Your task to perform on an android device: check data usage Image 0: 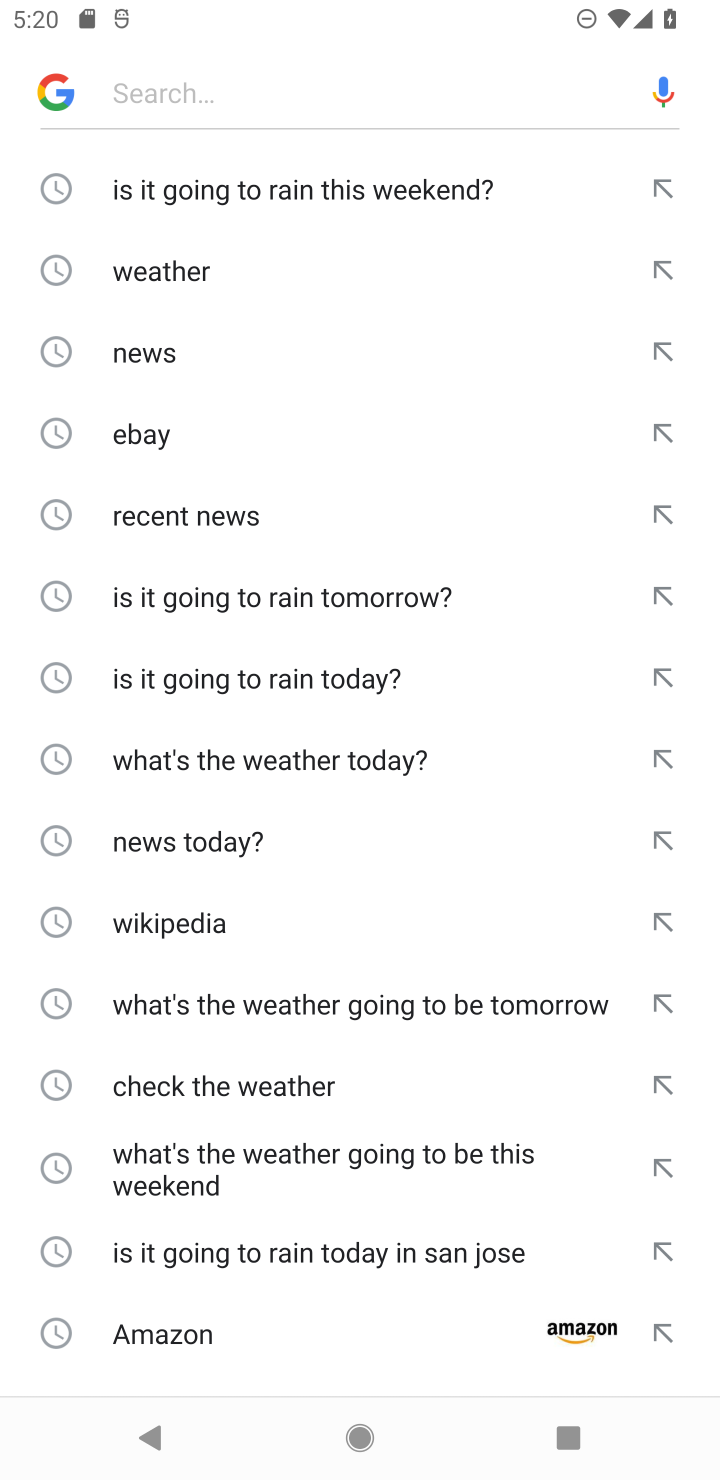
Step 0: click (535, 543)
Your task to perform on an android device: check data usage Image 1: 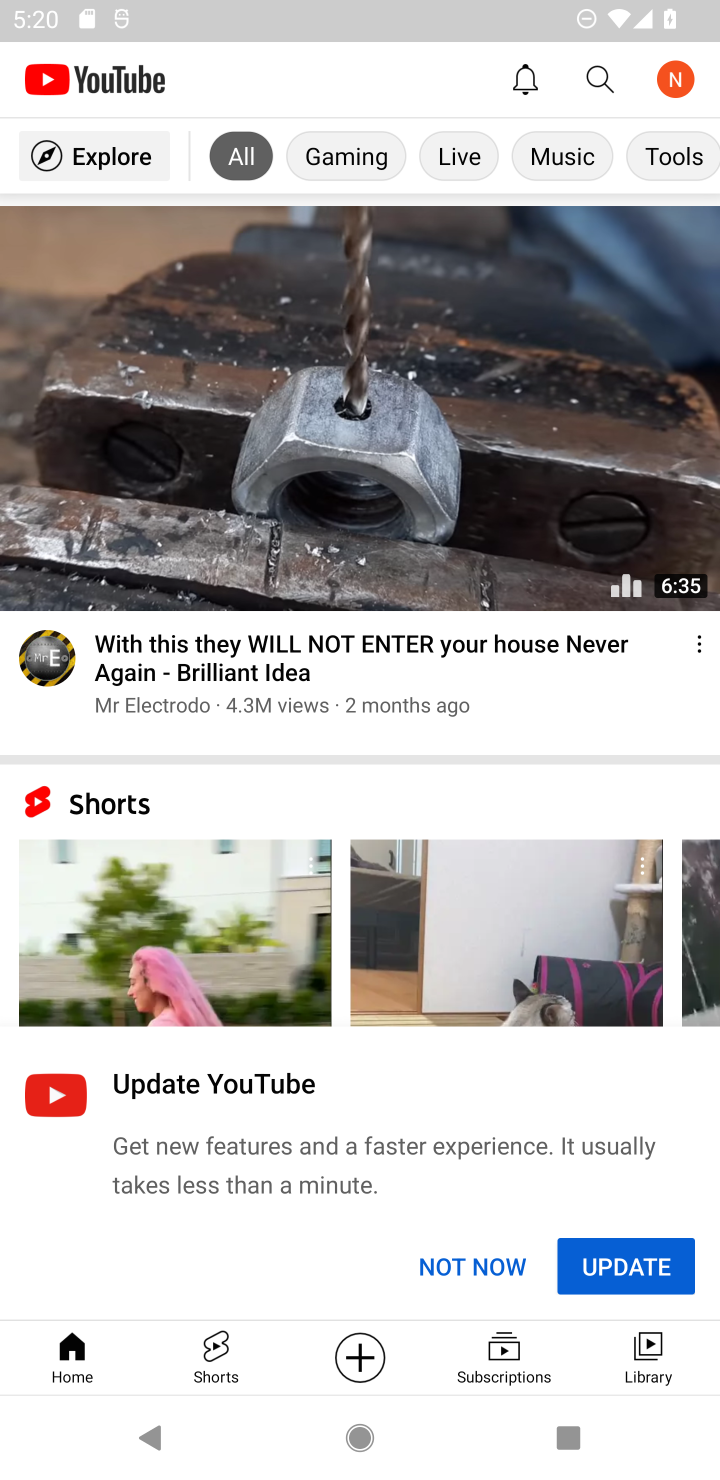
Step 1: press home button
Your task to perform on an android device: check data usage Image 2: 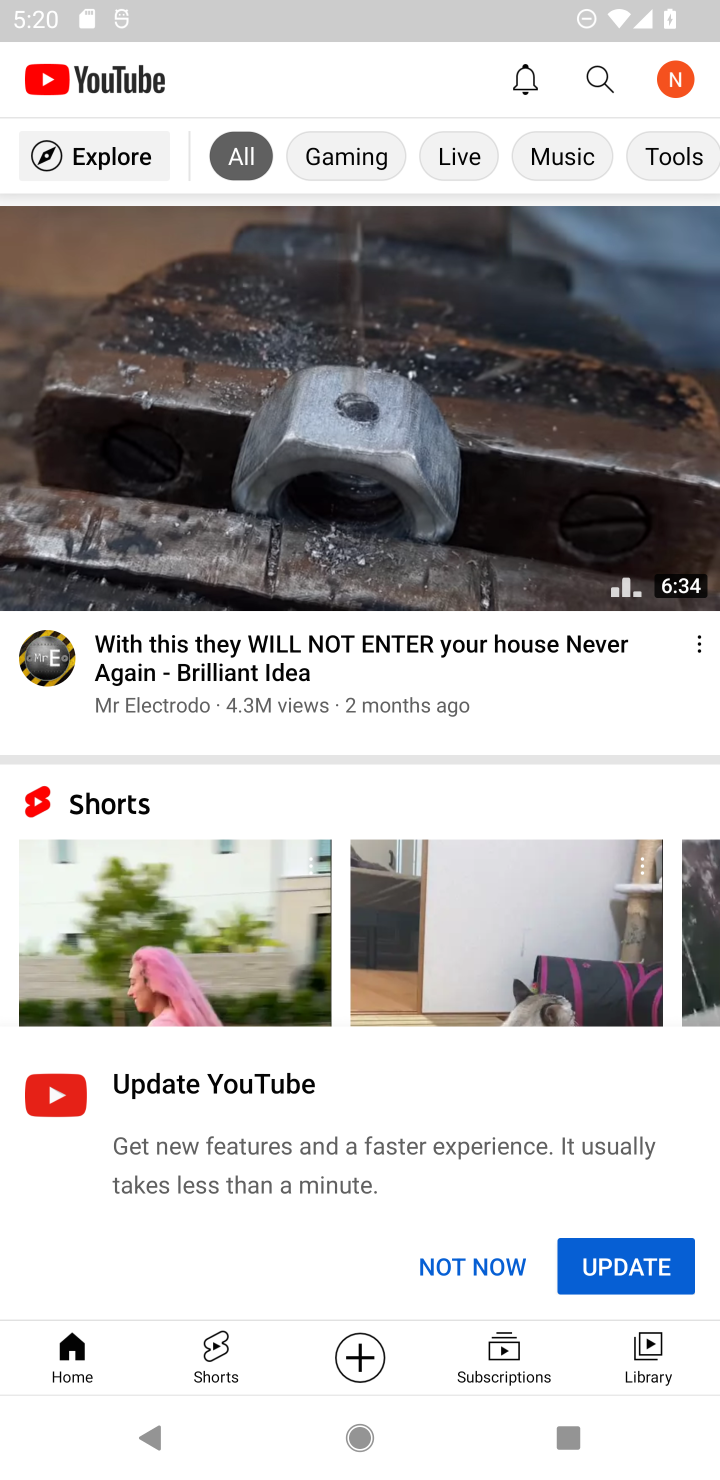
Step 2: drag from (470, 673) to (551, 221)
Your task to perform on an android device: check data usage Image 3: 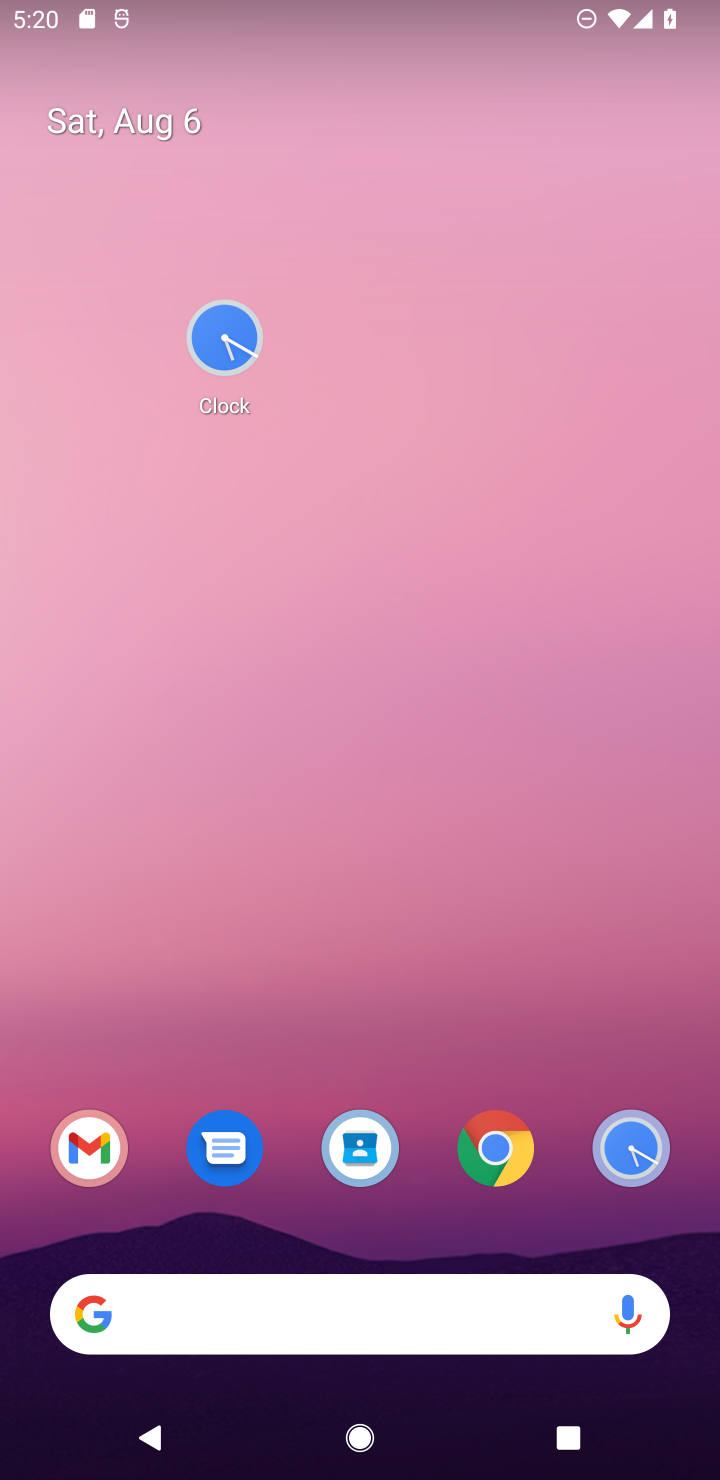
Step 3: drag from (469, 488) to (508, 219)
Your task to perform on an android device: check data usage Image 4: 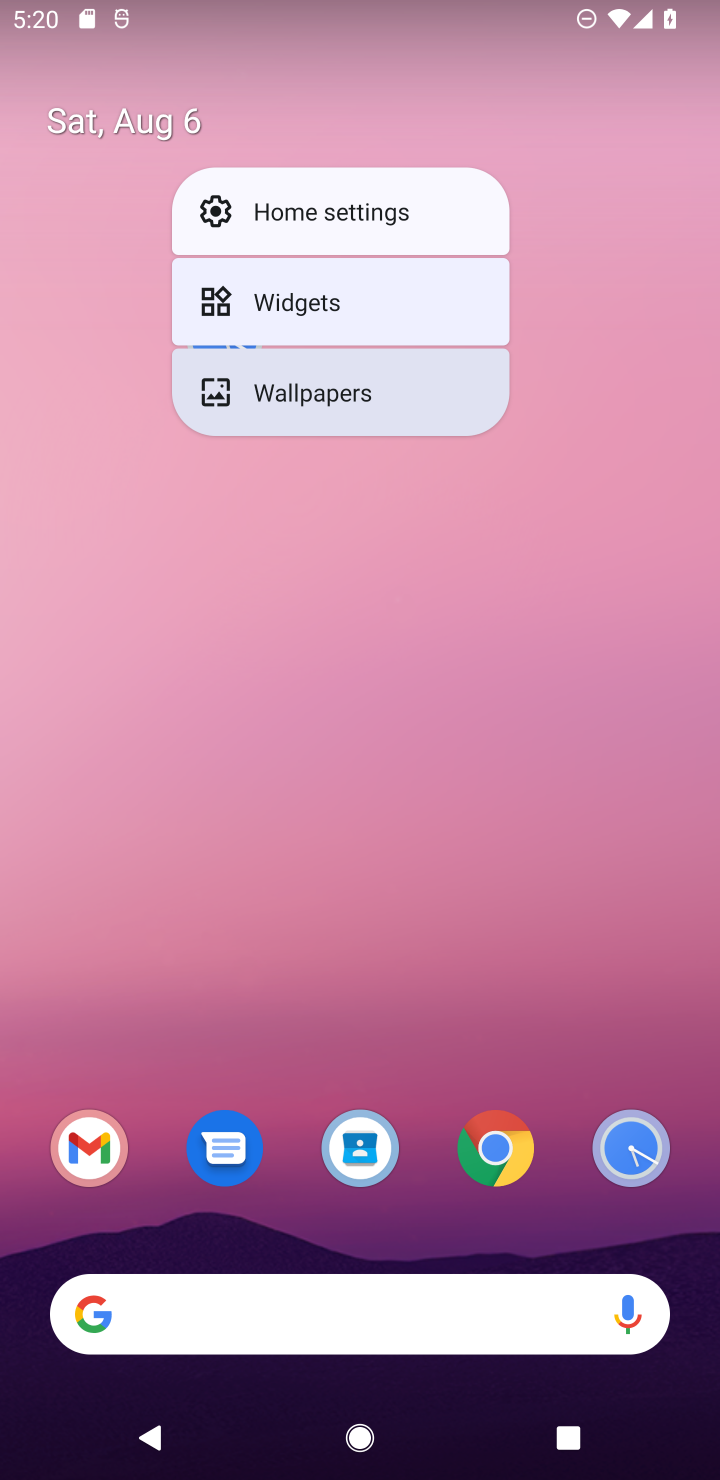
Step 4: drag from (401, 687) to (447, 402)
Your task to perform on an android device: check data usage Image 5: 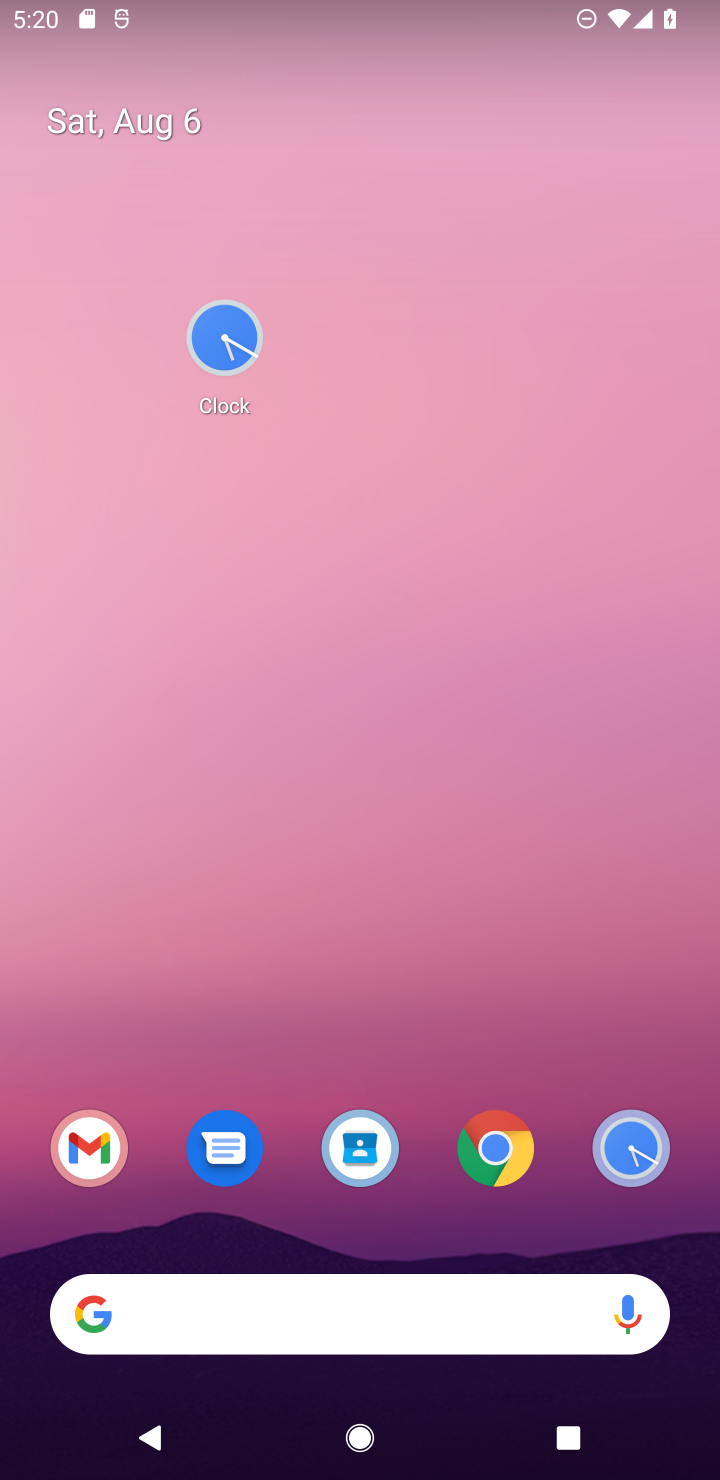
Step 5: drag from (402, 1101) to (488, 178)
Your task to perform on an android device: check data usage Image 6: 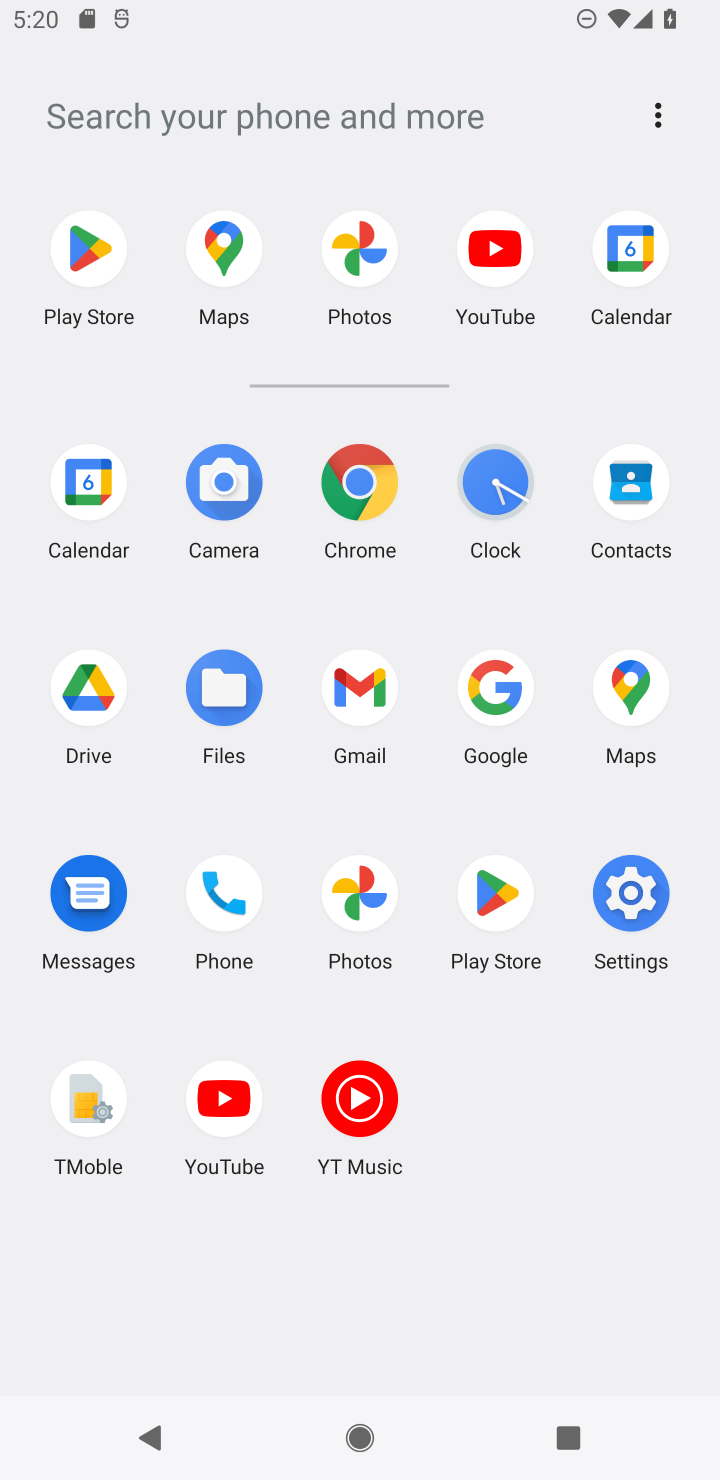
Step 6: click (608, 884)
Your task to perform on an android device: check data usage Image 7: 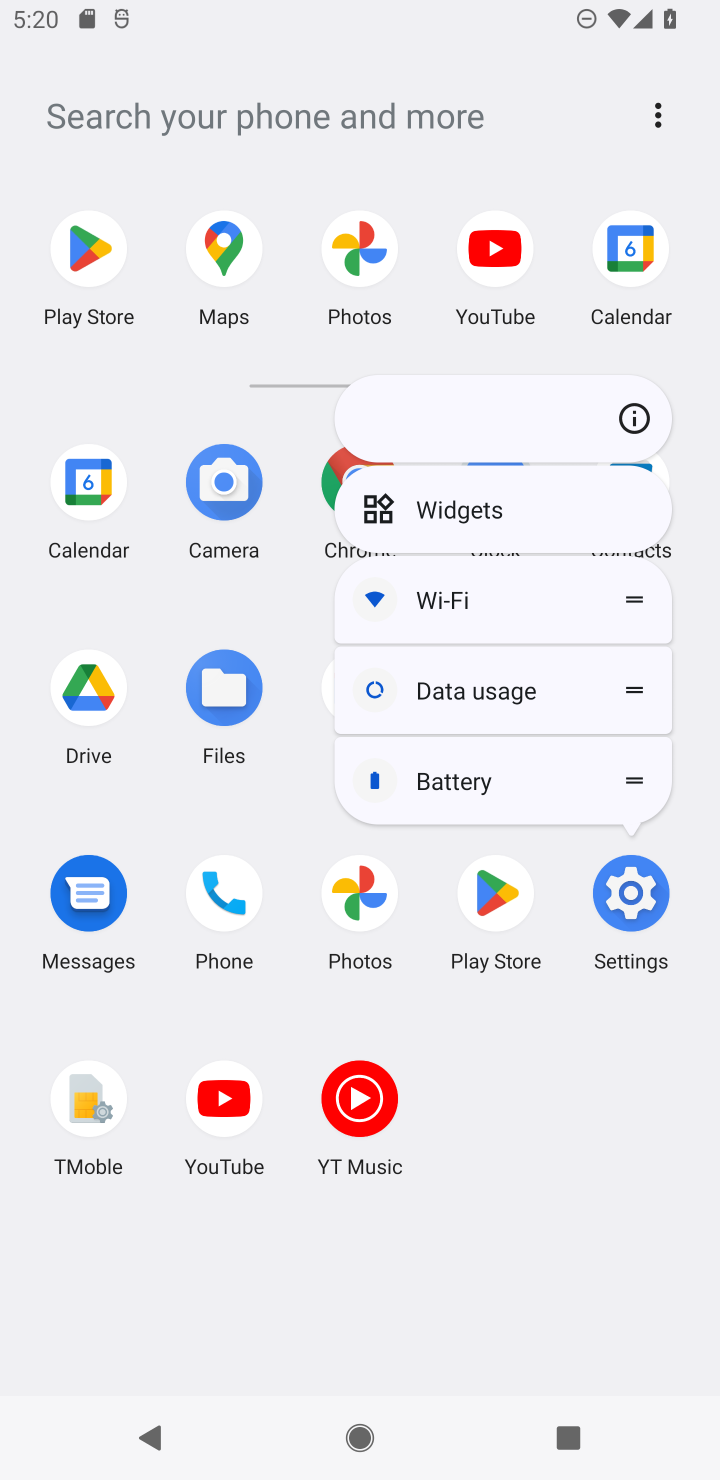
Step 7: click (636, 415)
Your task to perform on an android device: check data usage Image 8: 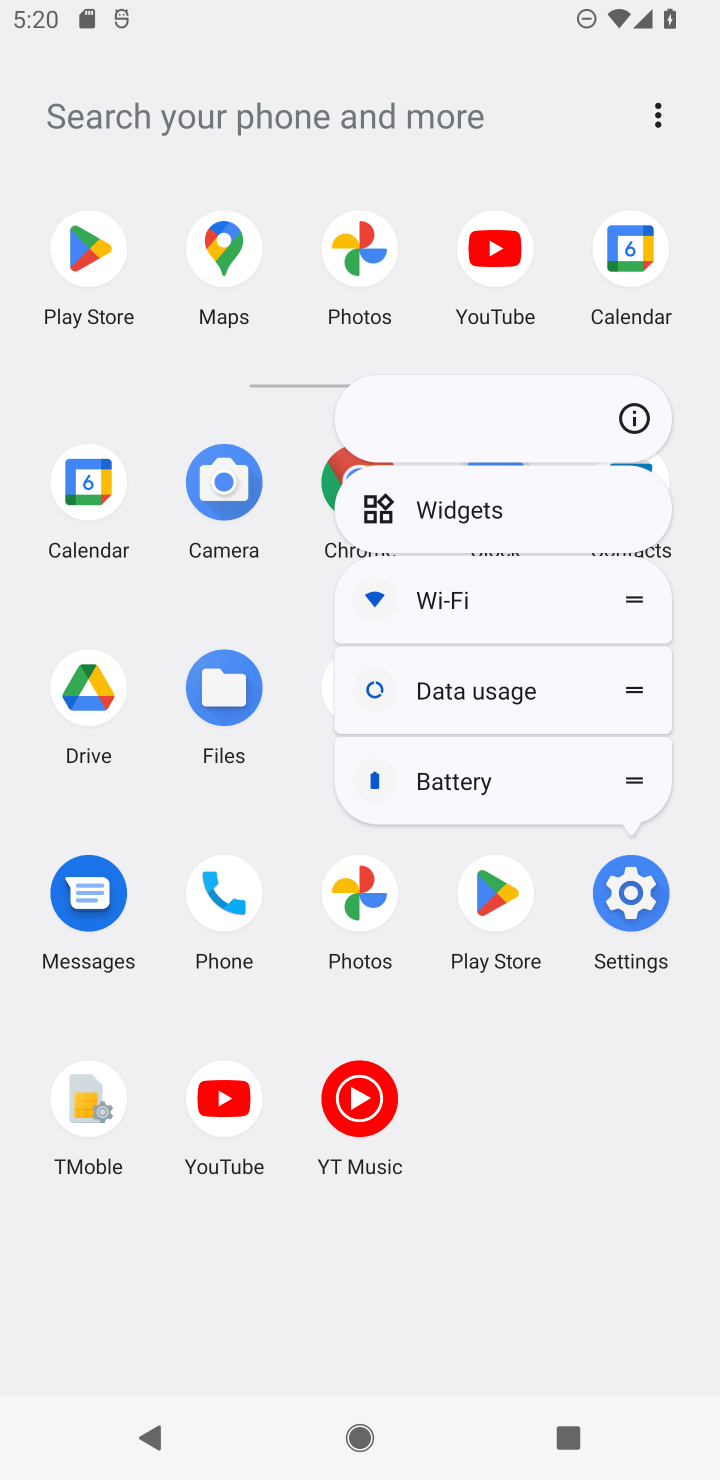
Step 8: click (585, 901)
Your task to perform on an android device: check data usage Image 9: 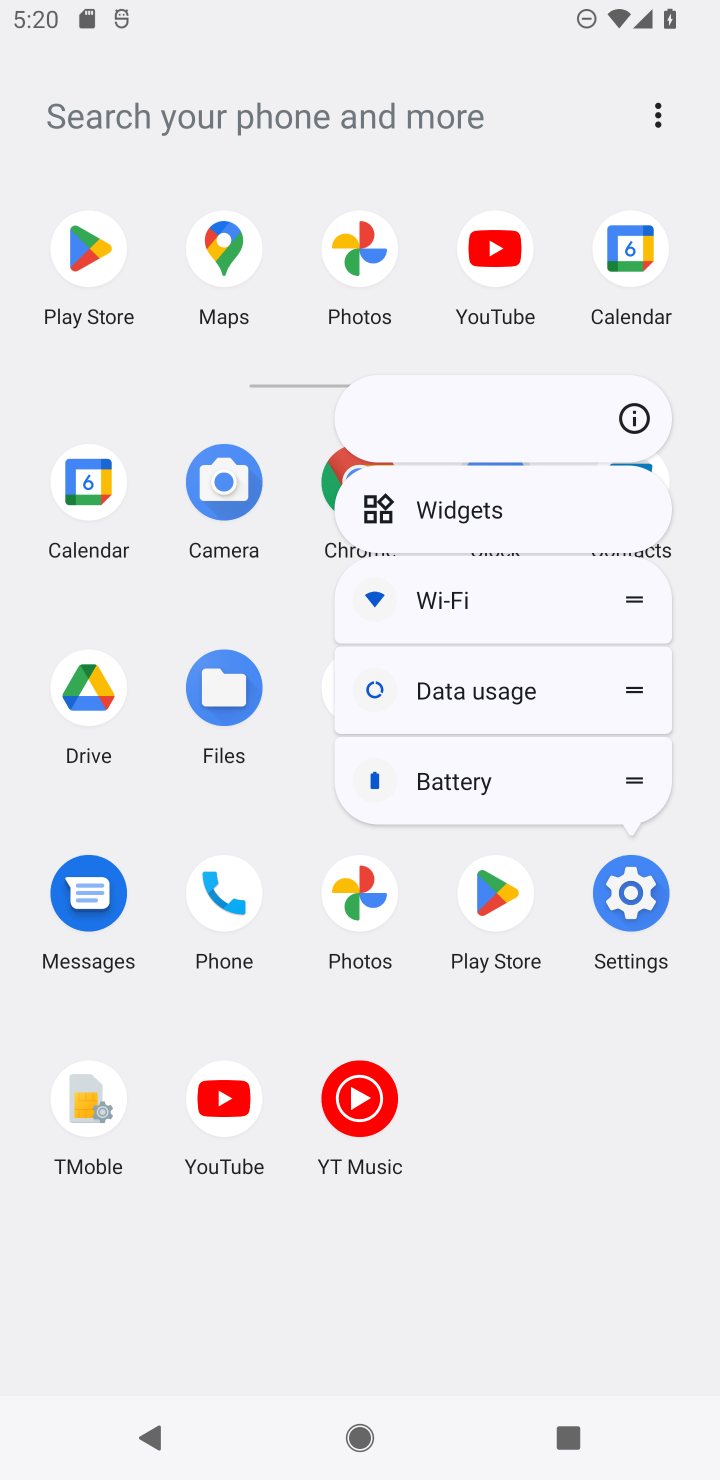
Step 9: click (603, 903)
Your task to perform on an android device: check data usage Image 10: 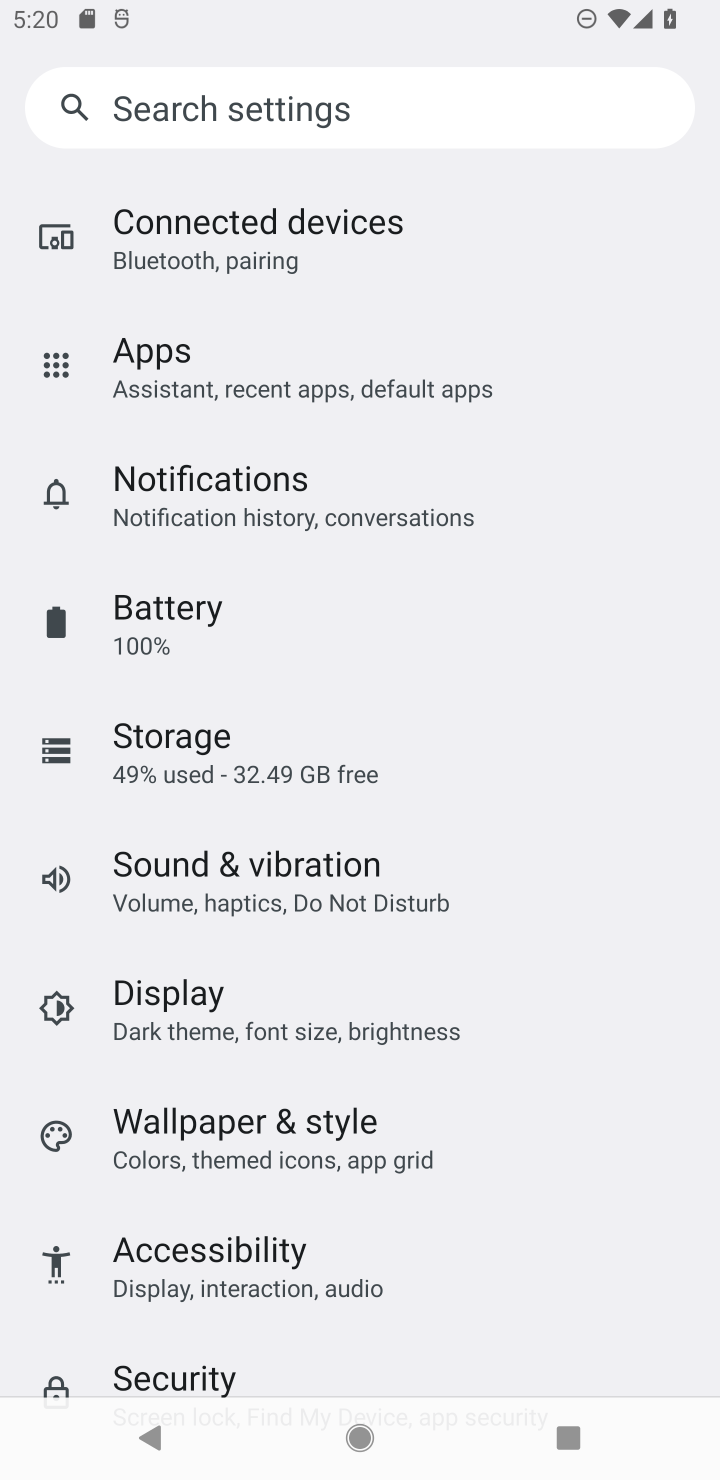
Step 10: drag from (278, 276) to (353, 1411)
Your task to perform on an android device: check data usage Image 11: 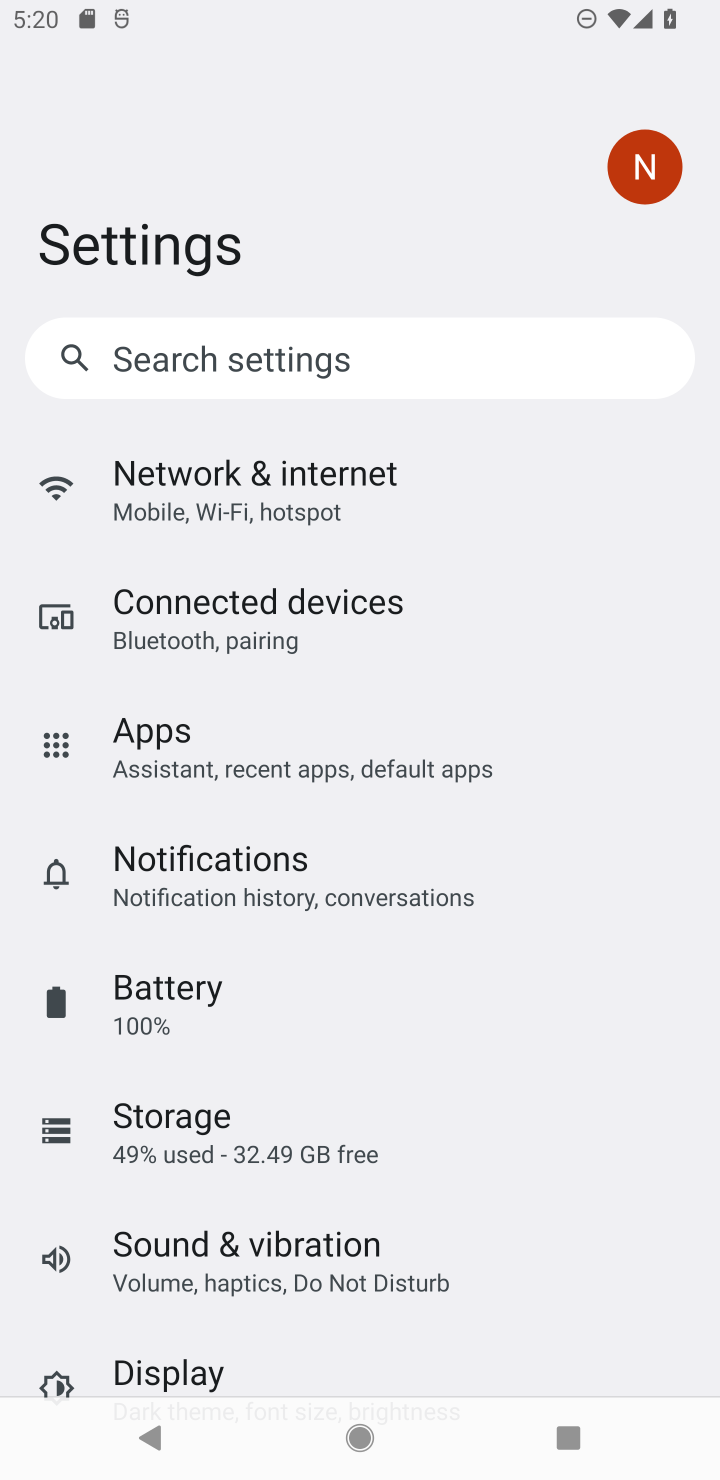
Step 11: click (337, 504)
Your task to perform on an android device: check data usage Image 12: 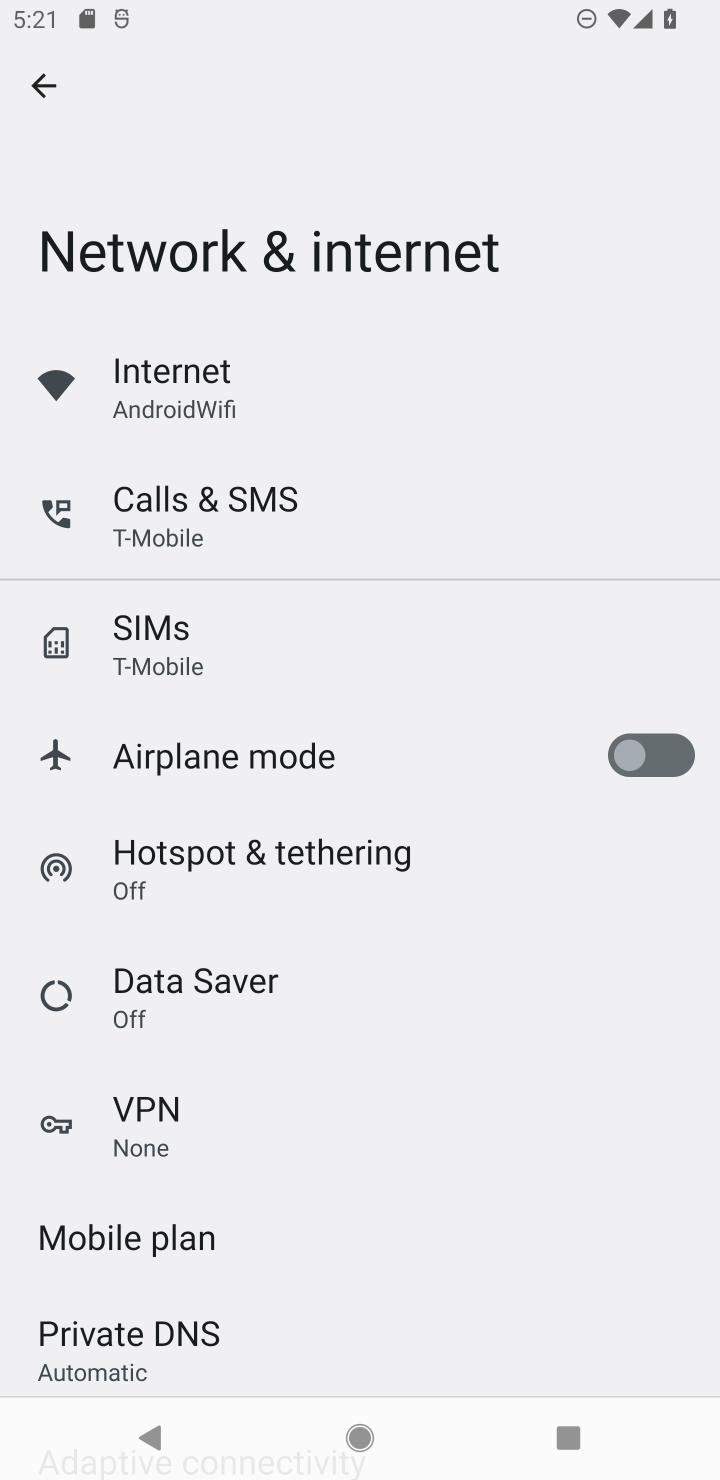
Step 12: click (295, 403)
Your task to perform on an android device: check data usage Image 13: 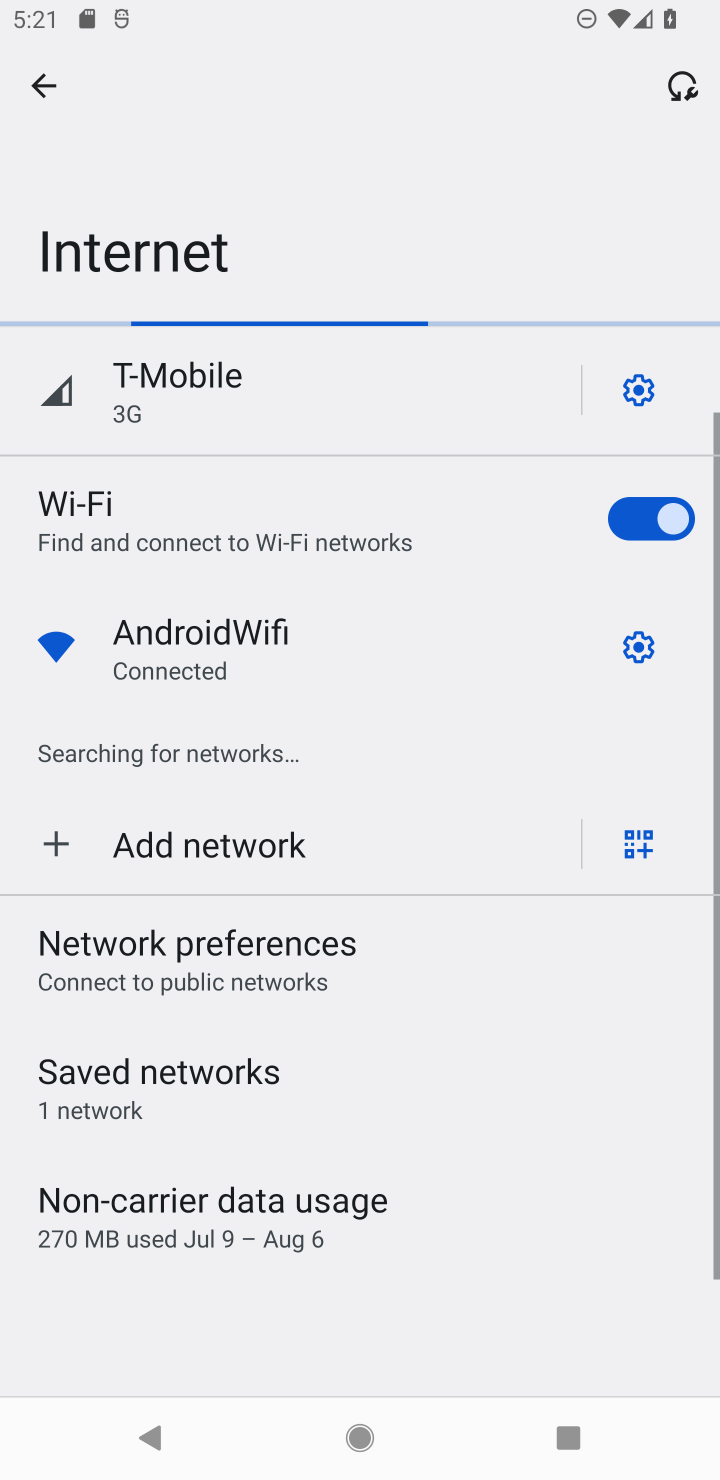
Step 13: click (405, 404)
Your task to perform on an android device: check data usage Image 14: 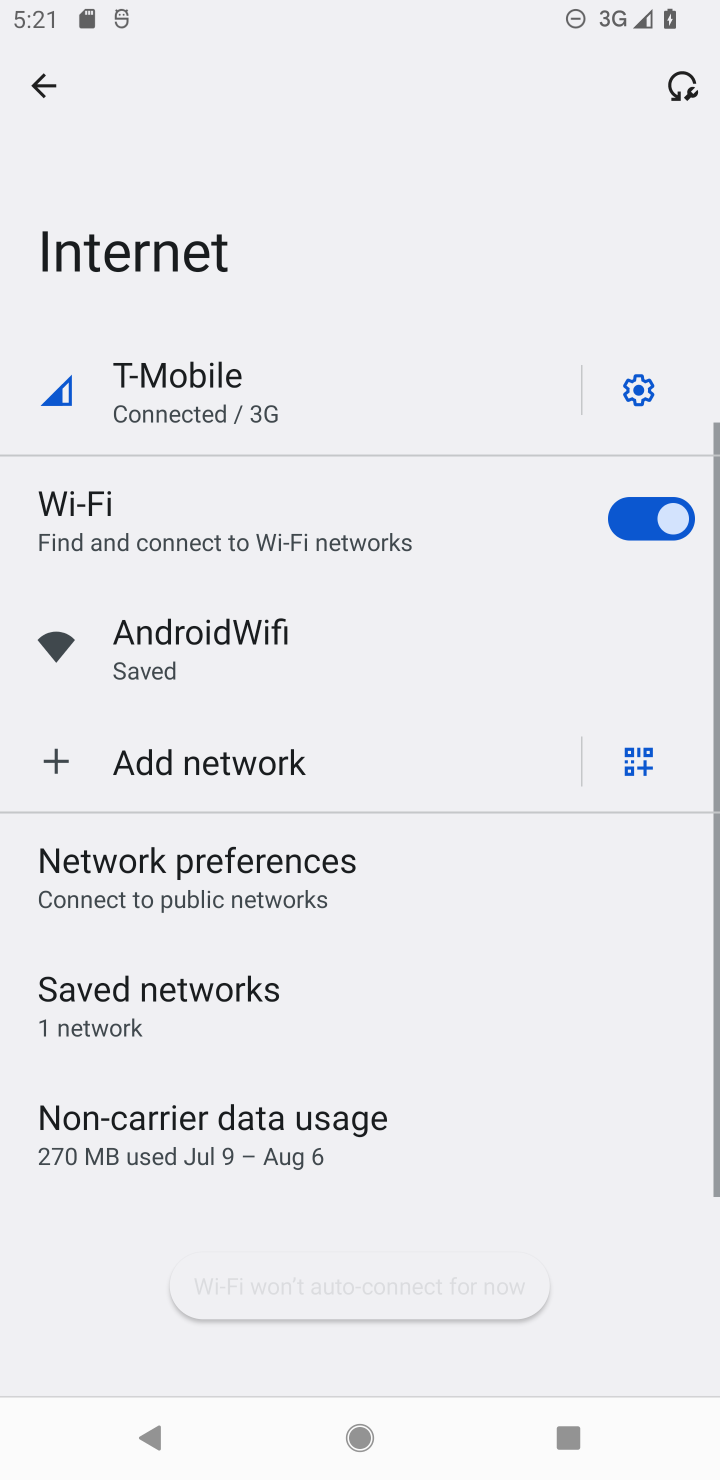
Step 14: task complete